Your task to perform on an android device: Go to Yahoo.com Image 0: 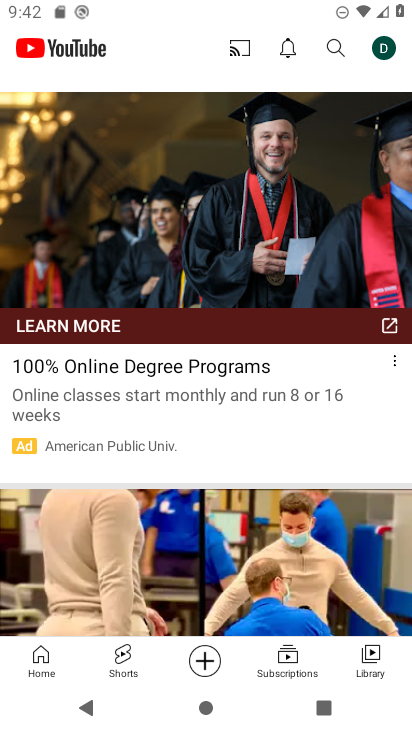
Step 0: press home button
Your task to perform on an android device: Go to Yahoo.com Image 1: 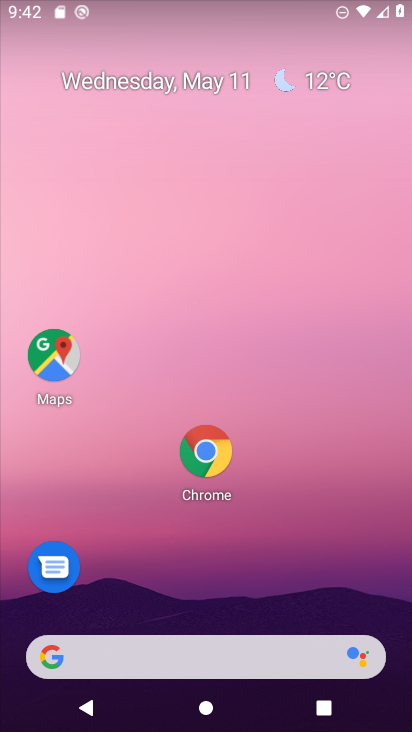
Step 1: click (210, 454)
Your task to perform on an android device: Go to Yahoo.com Image 2: 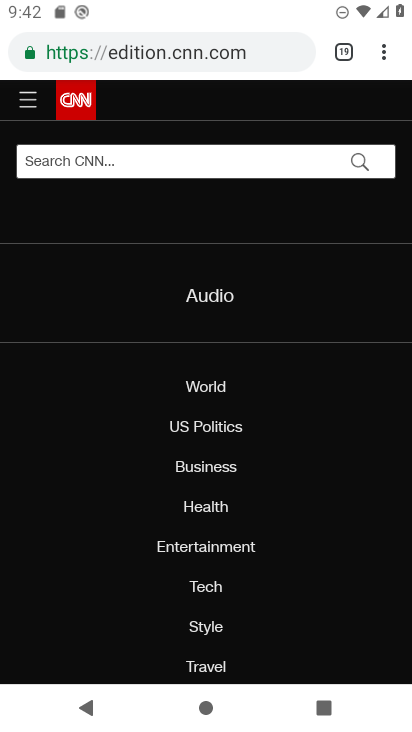
Step 2: drag from (381, 51) to (253, 109)
Your task to perform on an android device: Go to Yahoo.com Image 3: 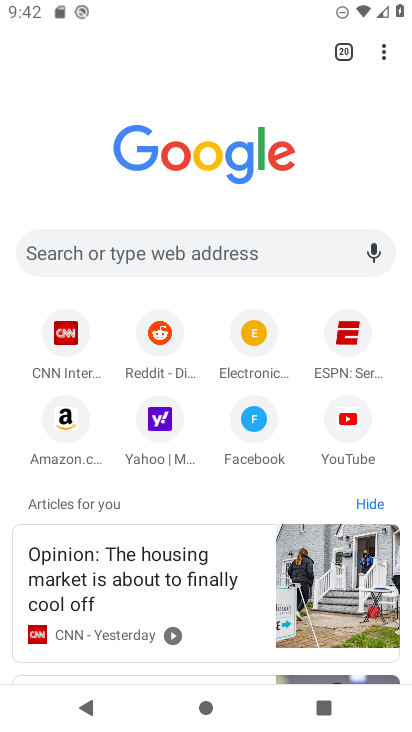
Step 3: click (155, 422)
Your task to perform on an android device: Go to Yahoo.com Image 4: 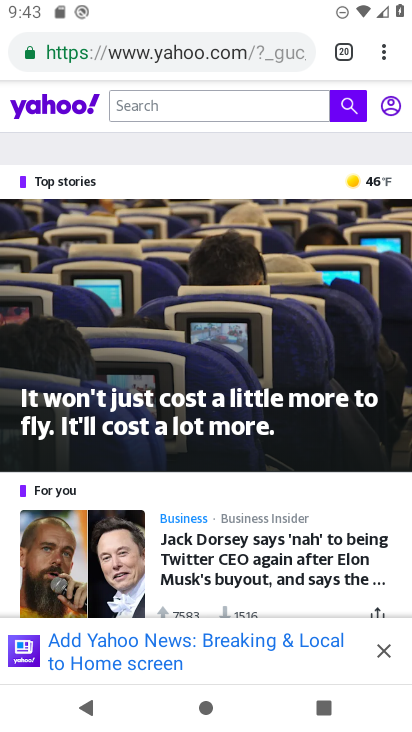
Step 4: task complete